Your task to perform on an android device: check the backup settings in the google photos Image 0: 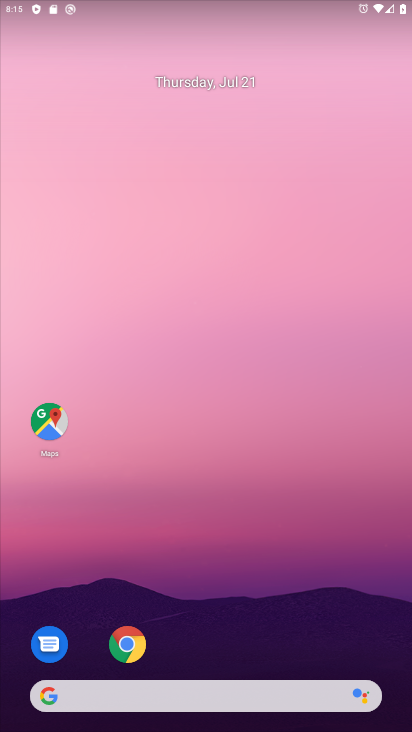
Step 0: drag from (365, 599) to (354, 102)
Your task to perform on an android device: check the backup settings in the google photos Image 1: 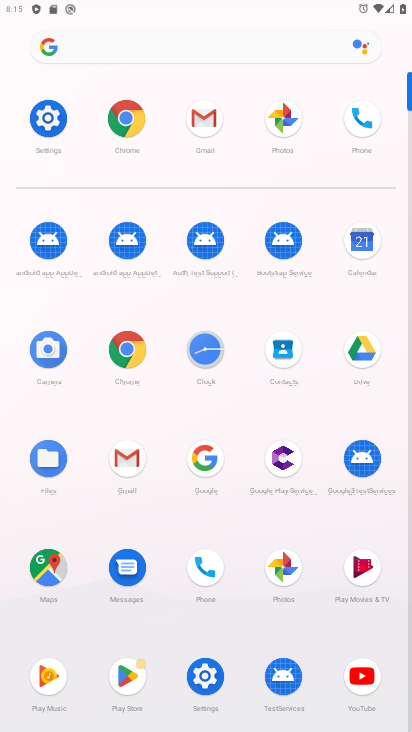
Step 1: click (283, 120)
Your task to perform on an android device: check the backup settings in the google photos Image 2: 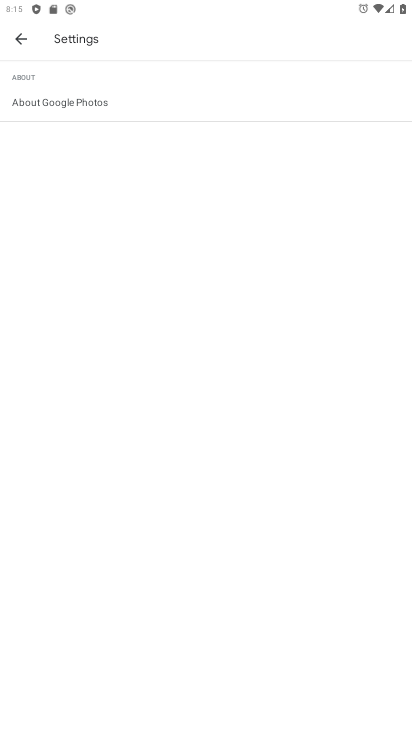
Step 2: press back button
Your task to perform on an android device: check the backup settings in the google photos Image 3: 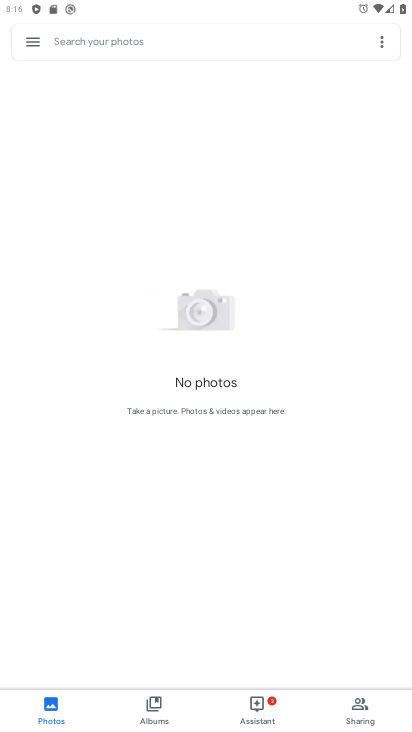
Step 3: click (32, 43)
Your task to perform on an android device: check the backup settings in the google photos Image 4: 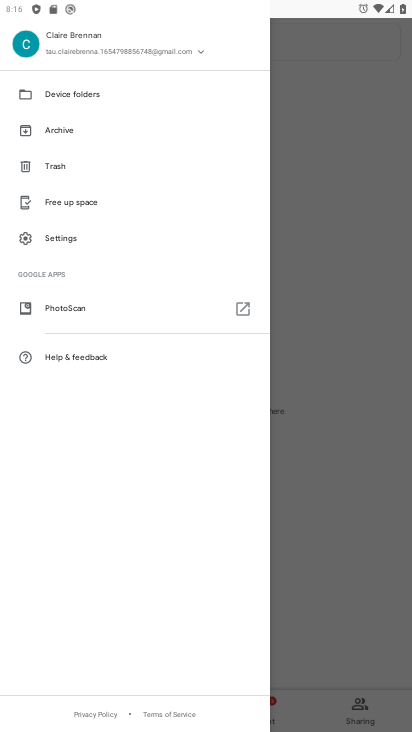
Step 4: click (64, 236)
Your task to perform on an android device: check the backup settings in the google photos Image 5: 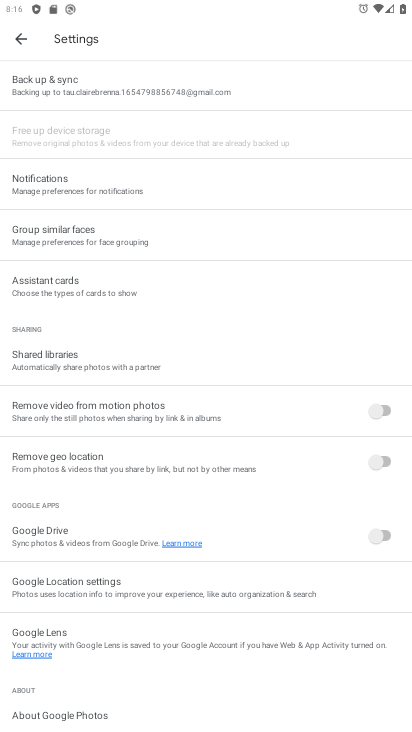
Step 5: click (104, 80)
Your task to perform on an android device: check the backup settings in the google photos Image 6: 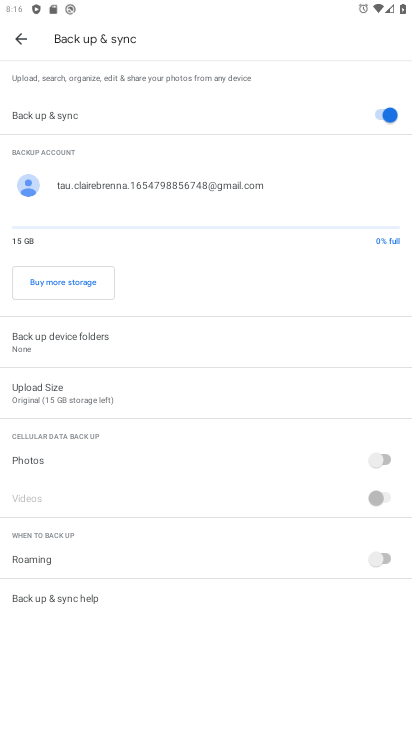
Step 6: task complete